Your task to perform on an android device: open a new tab in the chrome app Image 0: 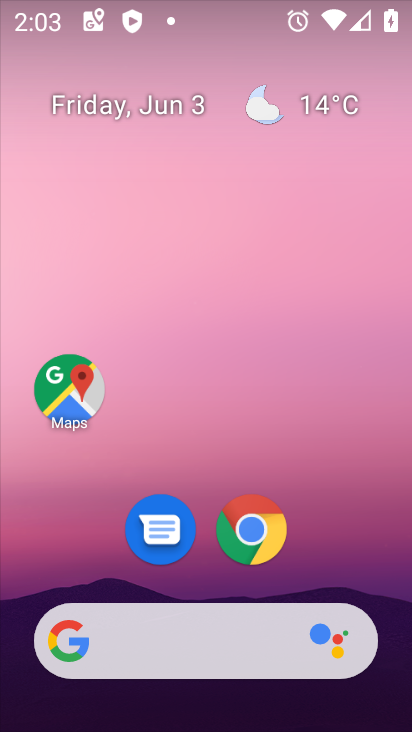
Step 0: drag from (370, 569) to (377, 168)
Your task to perform on an android device: open a new tab in the chrome app Image 1: 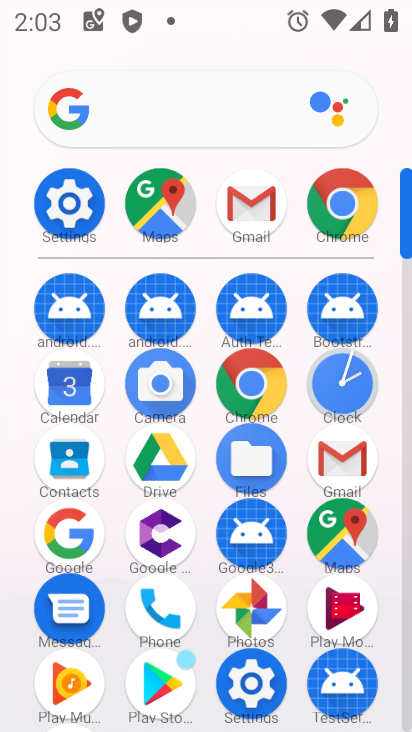
Step 1: click (263, 396)
Your task to perform on an android device: open a new tab in the chrome app Image 2: 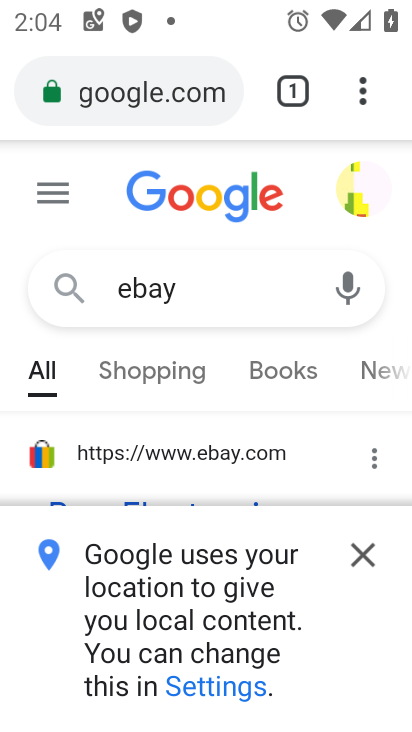
Step 2: click (365, 104)
Your task to perform on an android device: open a new tab in the chrome app Image 3: 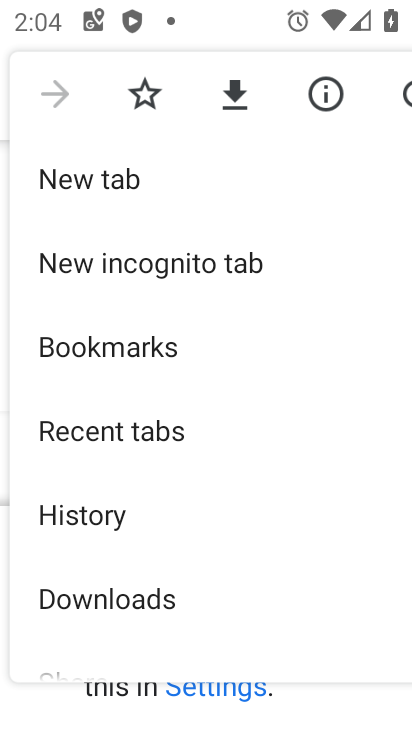
Step 3: click (151, 185)
Your task to perform on an android device: open a new tab in the chrome app Image 4: 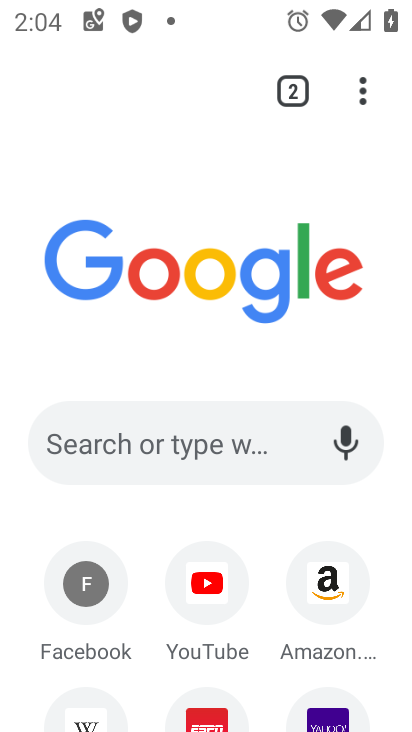
Step 4: task complete